Your task to perform on an android device: Go to battery settings Image 0: 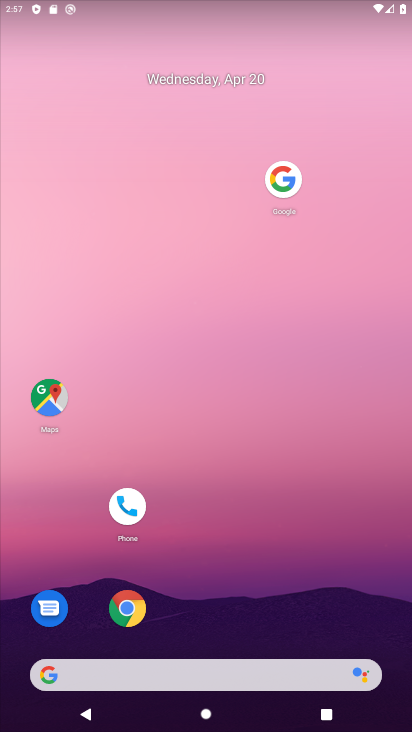
Step 0: drag from (281, 598) to (235, 144)
Your task to perform on an android device: Go to battery settings Image 1: 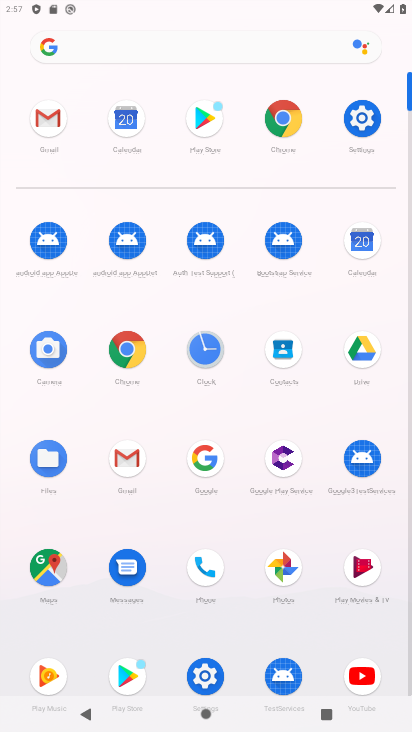
Step 1: click (354, 126)
Your task to perform on an android device: Go to battery settings Image 2: 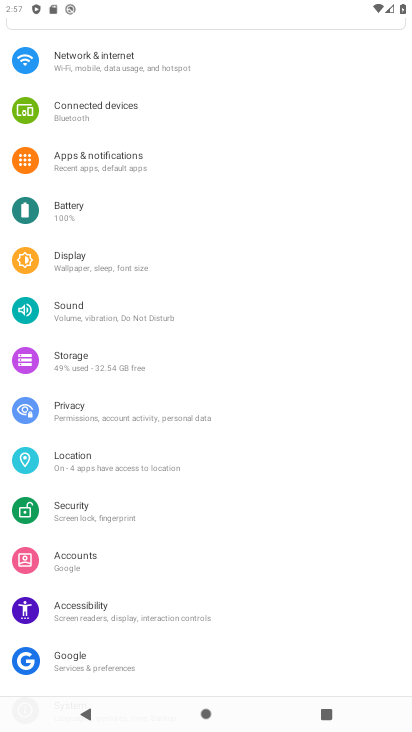
Step 2: drag from (179, 652) to (228, 455)
Your task to perform on an android device: Go to battery settings Image 3: 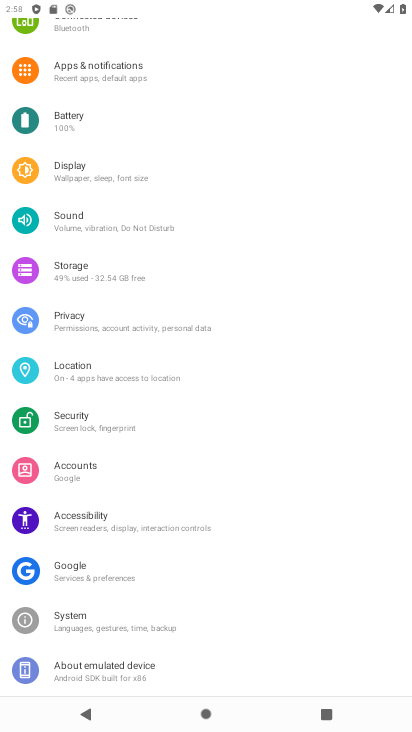
Step 3: click (75, 118)
Your task to perform on an android device: Go to battery settings Image 4: 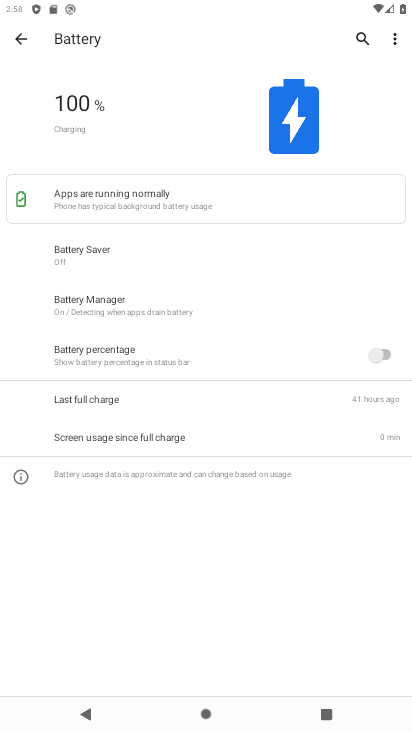
Step 4: task complete